Your task to perform on an android device: Open ESPN.com Image 0: 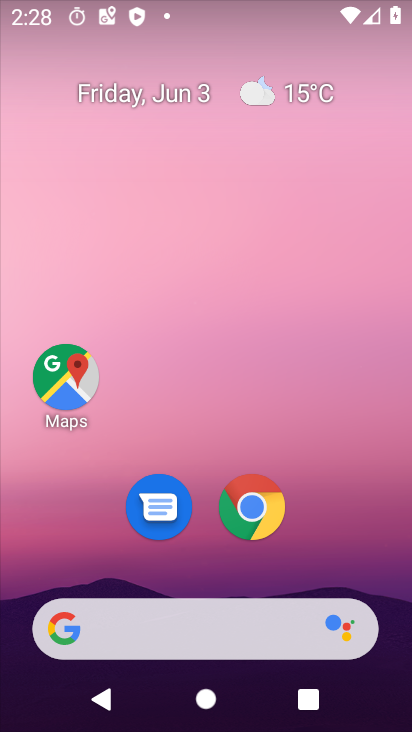
Step 0: drag from (408, 642) to (296, 52)
Your task to perform on an android device: Open ESPN.com Image 1: 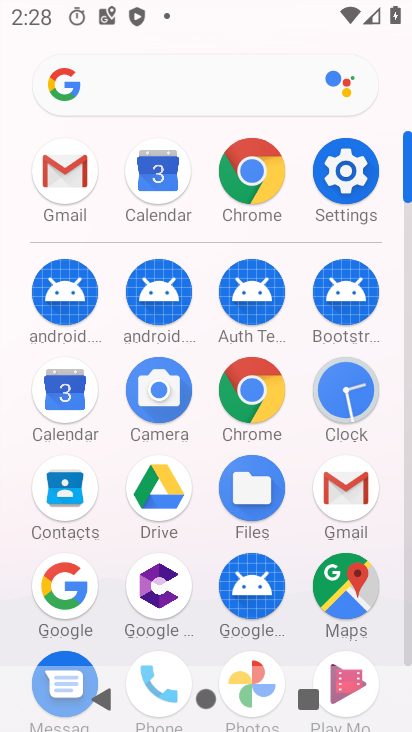
Step 1: click (48, 584)
Your task to perform on an android device: Open ESPN.com Image 2: 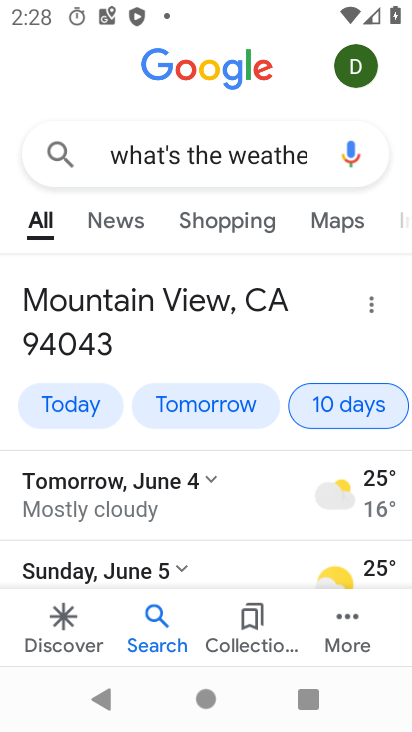
Step 2: press back button
Your task to perform on an android device: Open ESPN.com Image 3: 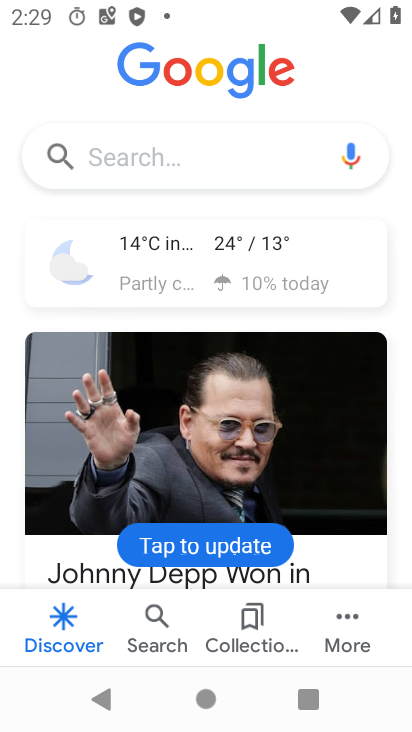
Step 3: click (219, 158)
Your task to perform on an android device: Open ESPN.com Image 4: 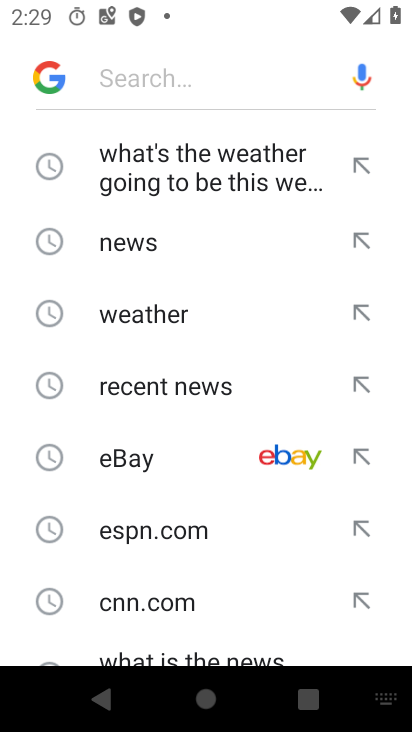
Step 4: click (189, 523)
Your task to perform on an android device: Open ESPN.com Image 5: 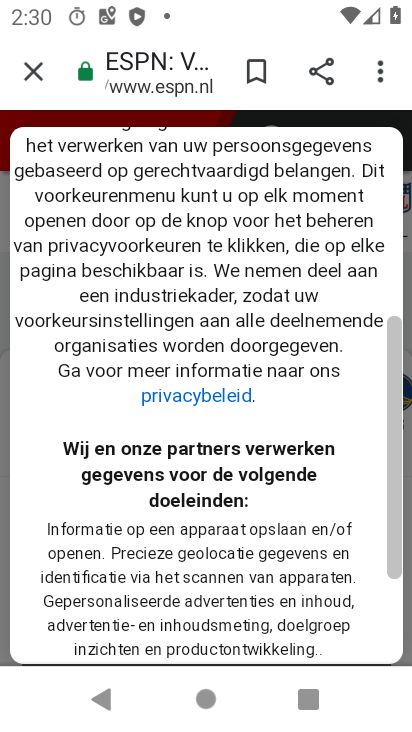
Step 5: task complete